Your task to perform on an android device: check the backup settings in the google photos Image 0: 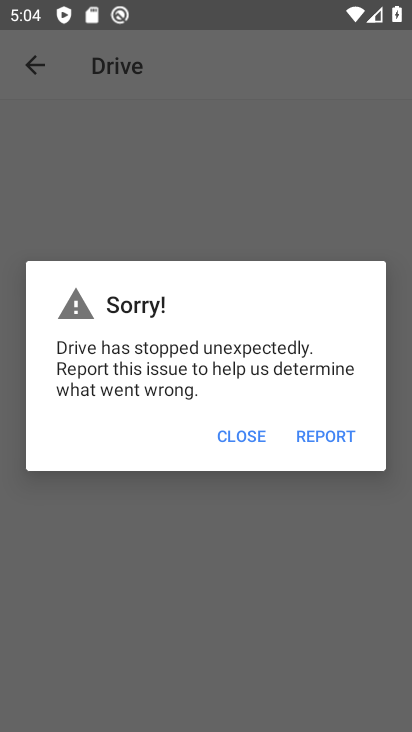
Step 0: press back button
Your task to perform on an android device: check the backup settings in the google photos Image 1: 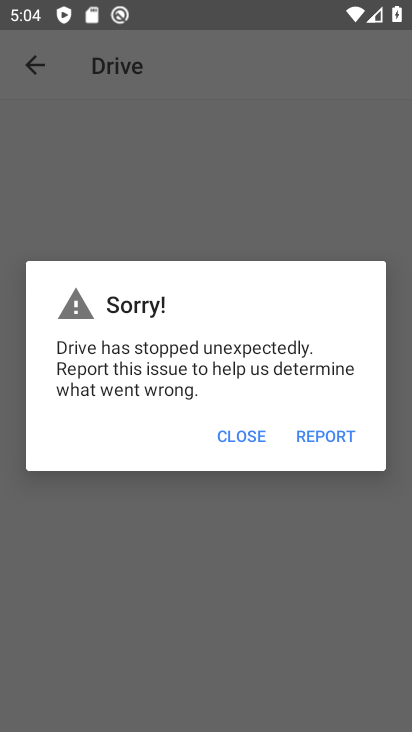
Step 1: press home button
Your task to perform on an android device: check the backup settings in the google photos Image 2: 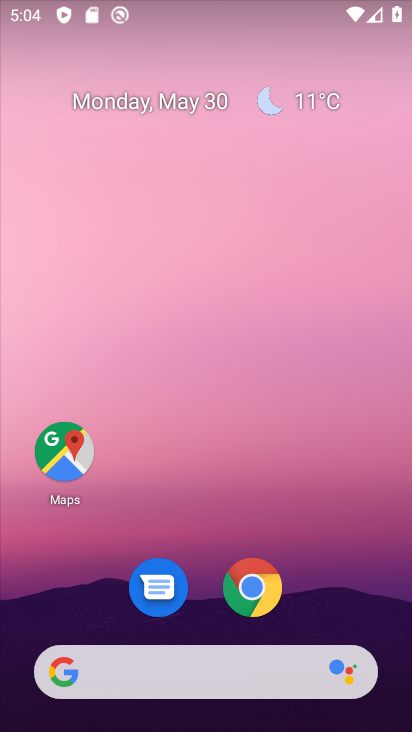
Step 2: drag from (267, 340) to (234, 24)
Your task to perform on an android device: check the backup settings in the google photos Image 3: 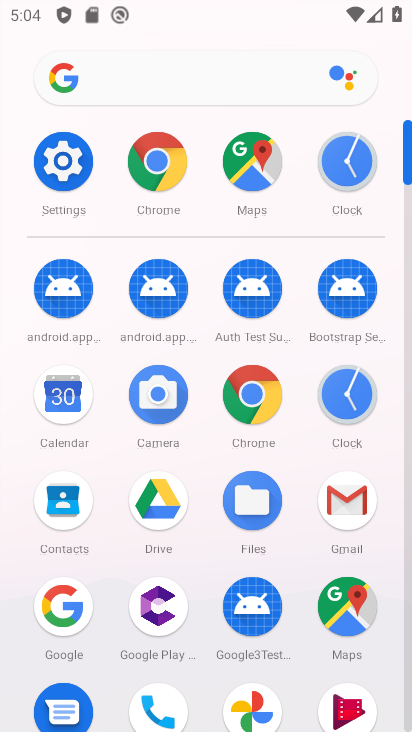
Step 3: drag from (0, 549) to (7, 204)
Your task to perform on an android device: check the backup settings in the google photos Image 4: 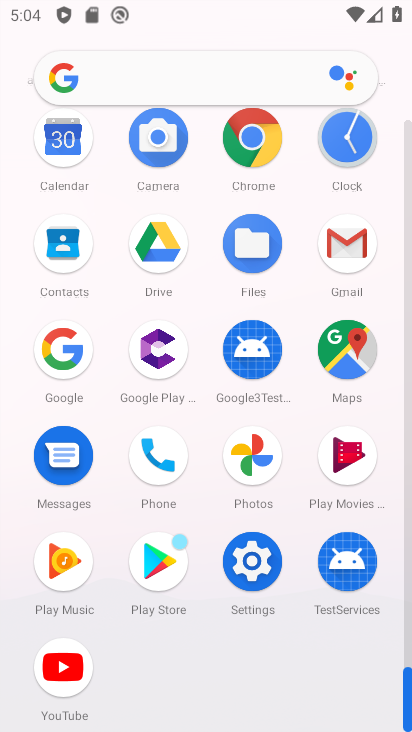
Step 4: click (252, 454)
Your task to perform on an android device: check the backup settings in the google photos Image 5: 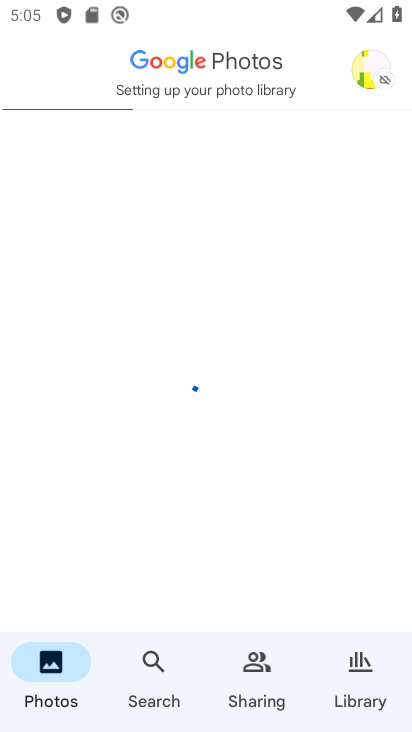
Step 5: click (366, 65)
Your task to perform on an android device: check the backup settings in the google photos Image 6: 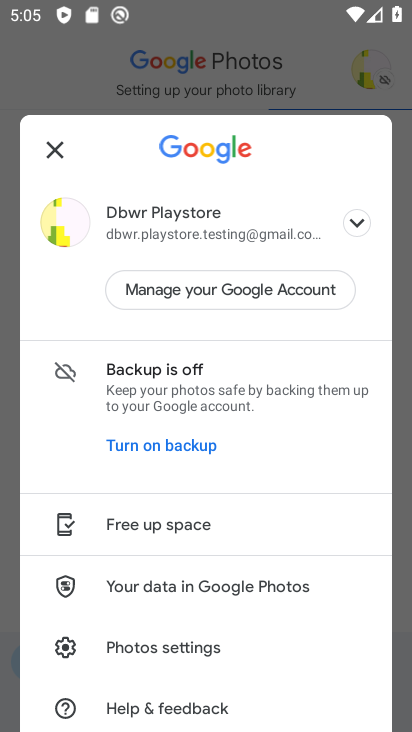
Step 6: click (192, 648)
Your task to perform on an android device: check the backup settings in the google photos Image 7: 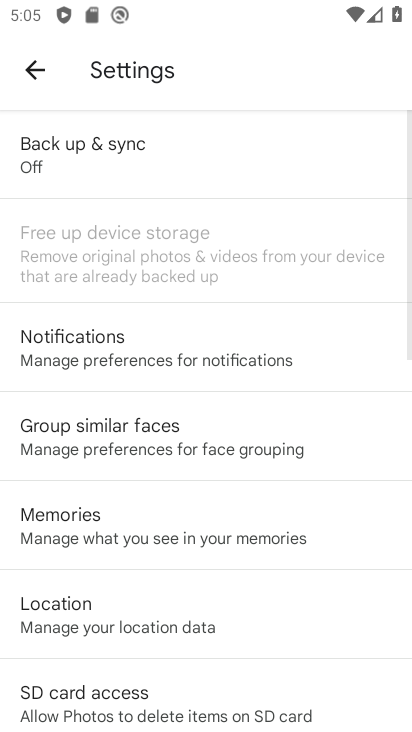
Step 7: click (157, 152)
Your task to perform on an android device: check the backup settings in the google photos Image 8: 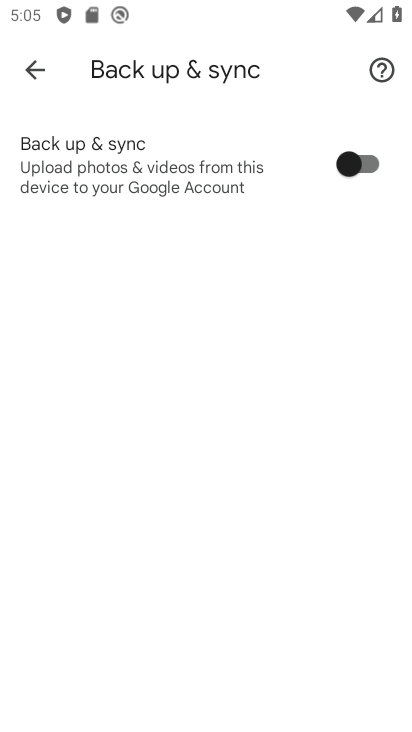
Step 8: task complete